Your task to perform on an android device: open app "Adobe Acrobat Reader: Edit PDF" (install if not already installed) Image 0: 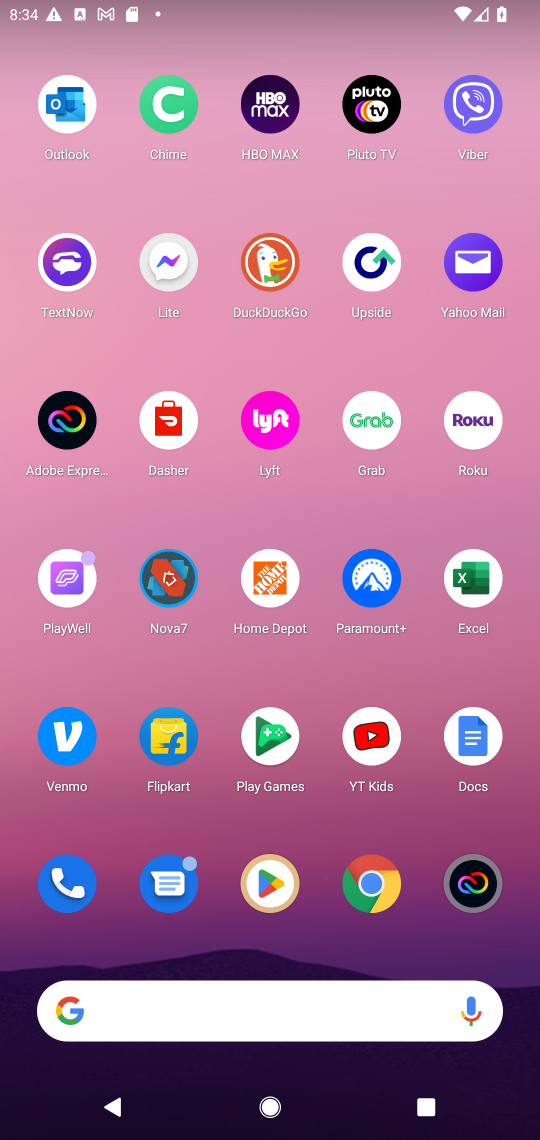
Step 0: click (277, 872)
Your task to perform on an android device: open app "Adobe Acrobat Reader: Edit PDF" (install if not already installed) Image 1: 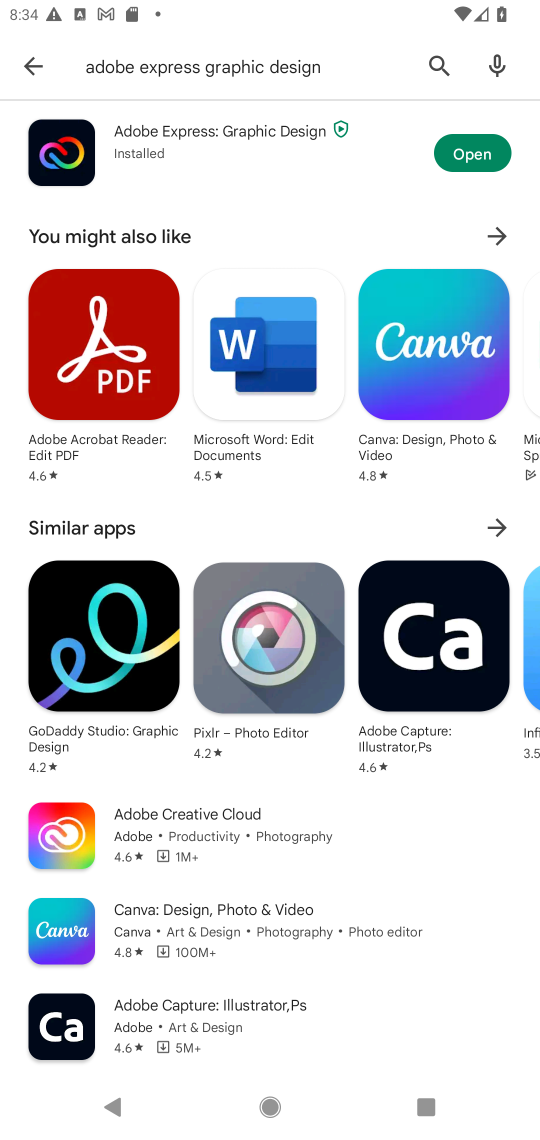
Step 1: click (430, 54)
Your task to perform on an android device: open app "Adobe Acrobat Reader: Edit PDF" (install if not already installed) Image 2: 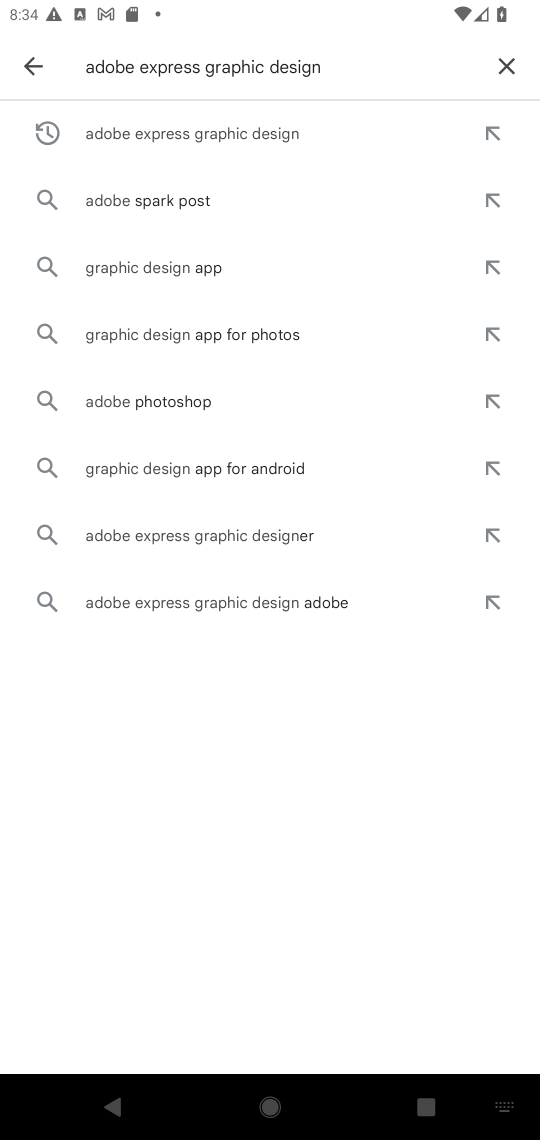
Step 2: click (344, 128)
Your task to perform on an android device: open app "Adobe Acrobat Reader: Edit PDF" (install if not already installed) Image 3: 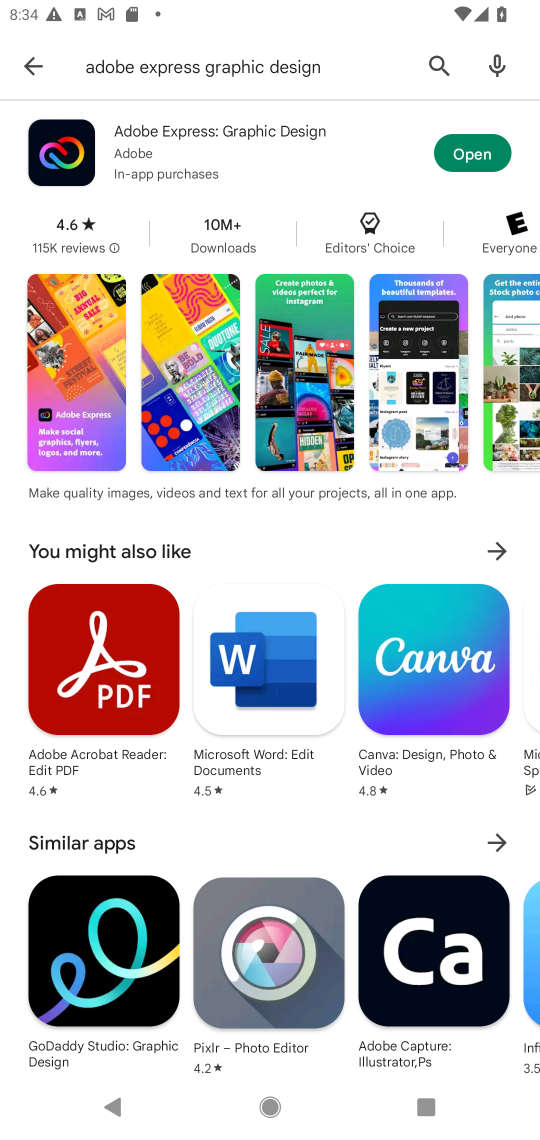
Step 3: click (493, 159)
Your task to perform on an android device: open app "Adobe Acrobat Reader: Edit PDF" (install if not already installed) Image 4: 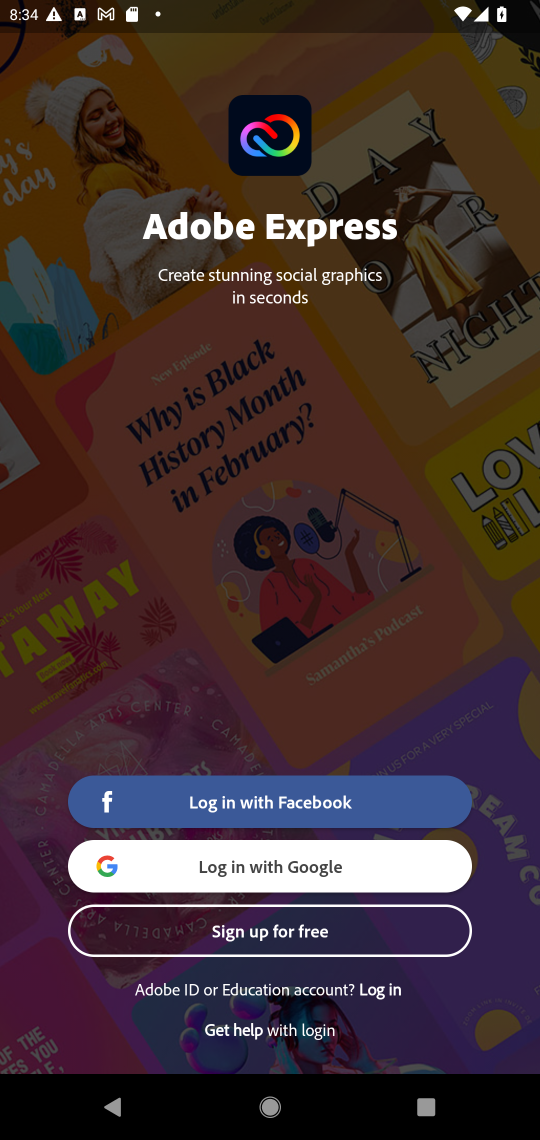
Step 4: task complete